Your task to perform on an android device: toggle pop-ups in chrome Image 0: 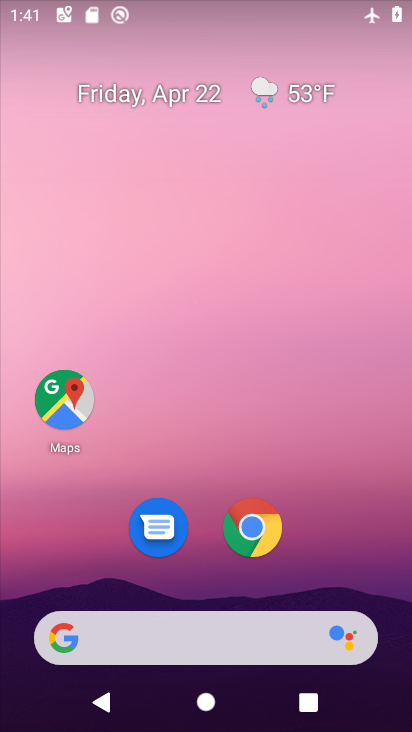
Step 0: click (271, 524)
Your task to perform on an android device: toggle pop-ups in chrome Image 1: 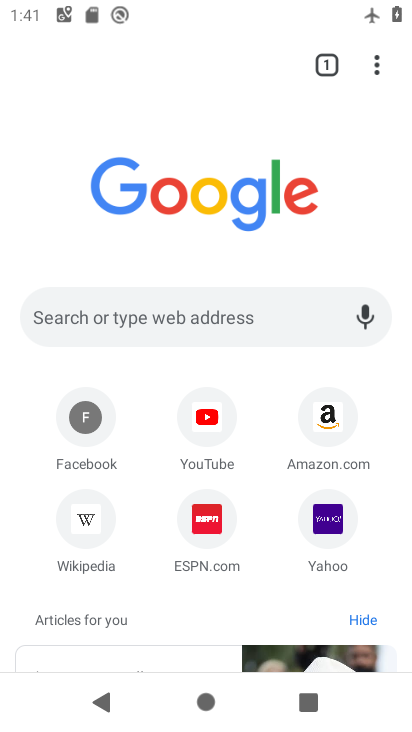
Step 1: click (370, 73)
Your task to perform on an android device: toggle pop-ups in chrome Image 2: 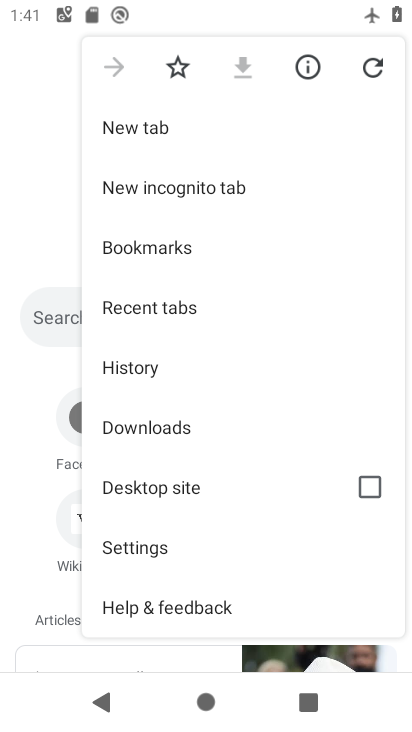
Step 2: click (174, 540)
Your task to perform on an android device: toggle pop-ups in chrome Image 3: 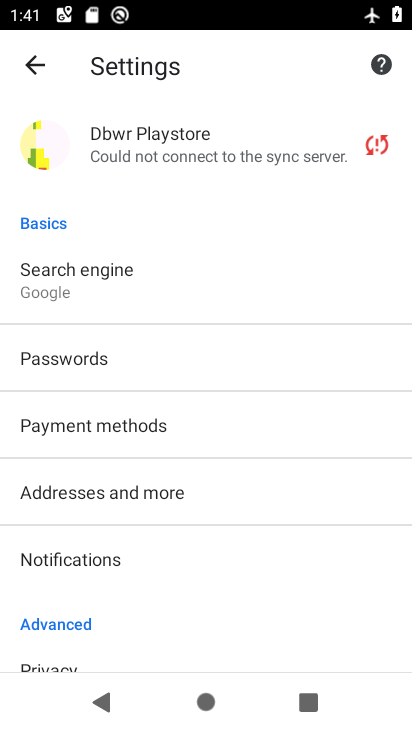
Step 3: drag from (217, 581) to (188, 309)
Your task to perform on an android device: toggle pop-ups in chrome Image 4: 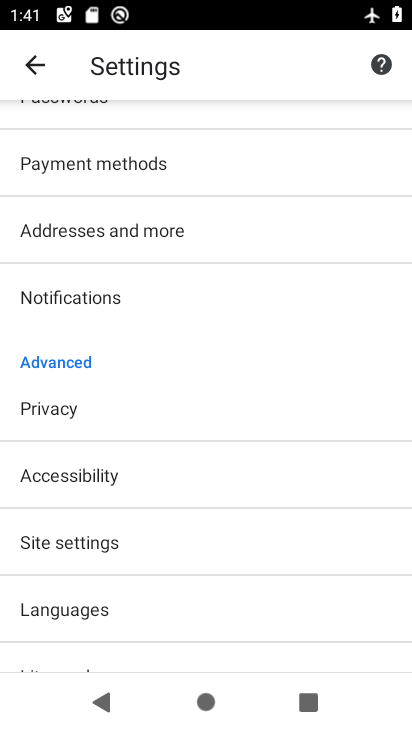
Step 4: click (132, 551)
Your task to perform on an android device: toggle pop-ups in chrome Image 5: 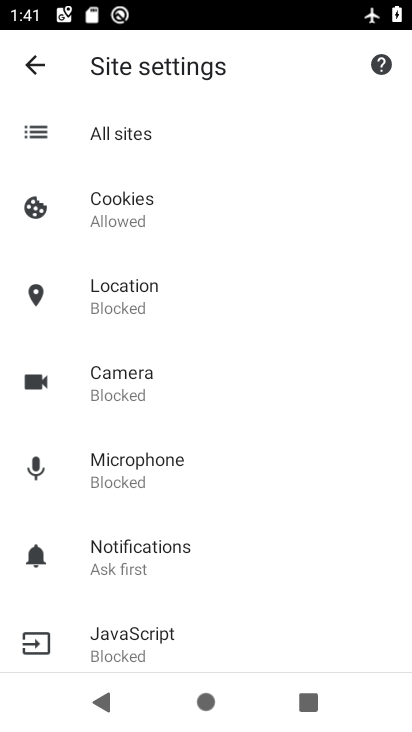
Step 5: drag from (168, 567) to (149, 171)
Your task to perform on an android device: toggle pop-ups in chrome Image 6: 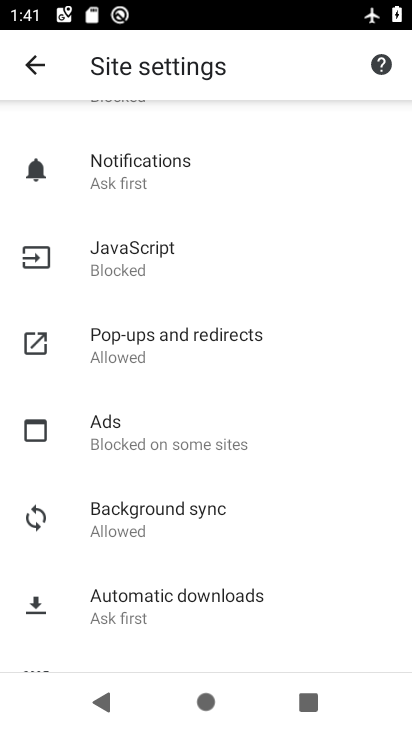
Step 6: click (139, 340)
Your task to perform on an android device: toggle pop-ups in chrome Image 7: 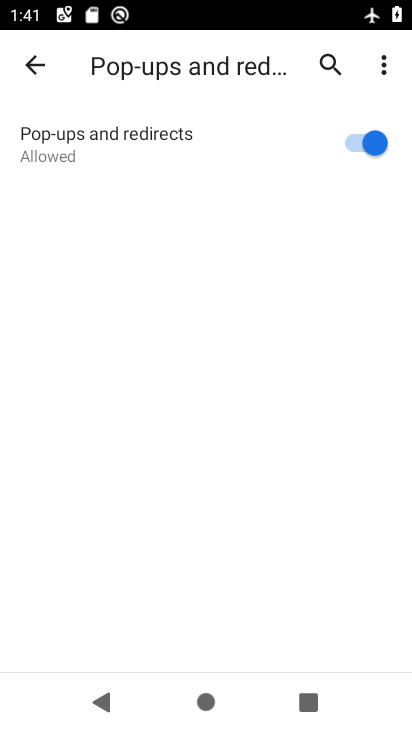
Step 7: click (376, 140)
Your task to perform on an android device: toggle pop-ups in chrome Image 8: 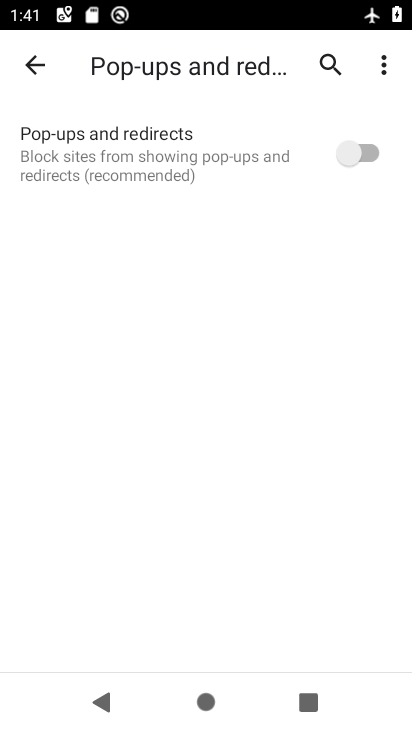
Step 8: task complete